Your task to perform on an android device: turn off translation in the chrome app Image 0: 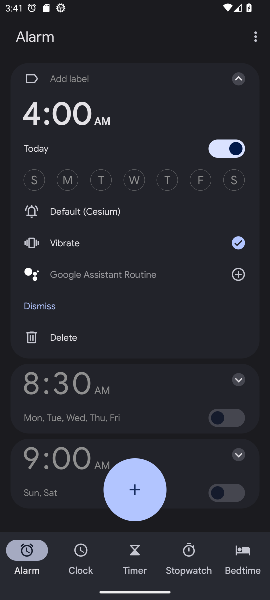
Step 0: press home button
Your task to perform on an android device: turn off translation in the chrome app Image 1: 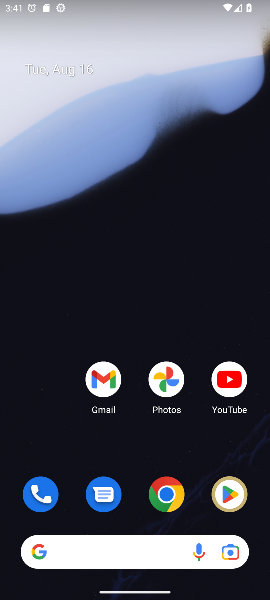
Step 1: click (175, 493)
Your task to perform on an android device: turn off translation in the chrome app Image 2: 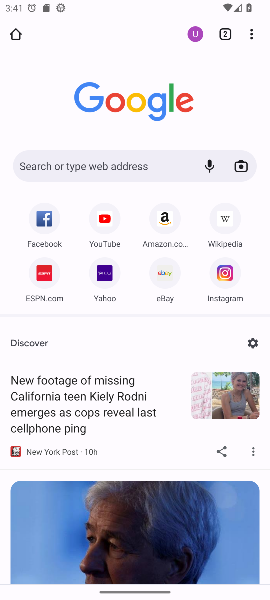
Step 2: click (249, 29)
Your task to perform on an android device: turn off translation in the chrome app Image 3: 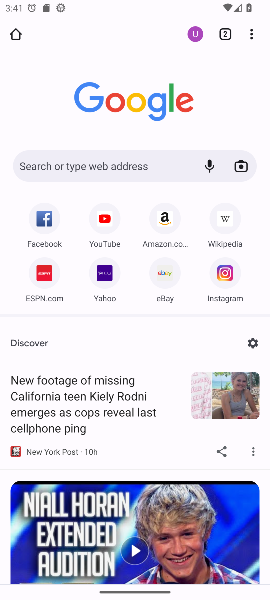
Step 3: click (258, 39)
Your task to perform on an android device: turn off translation in the chrome app Image 4: 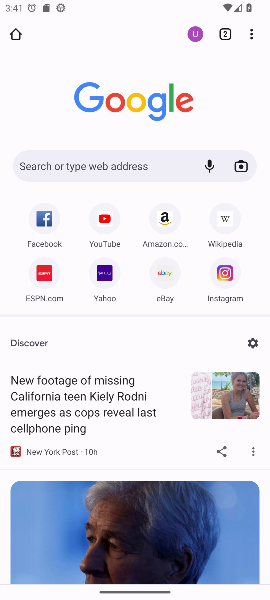
Step 4: drag from (248, 29) to (157, 313)
Your task to perform on an android device: turn off translation in the chrome app Image 5: 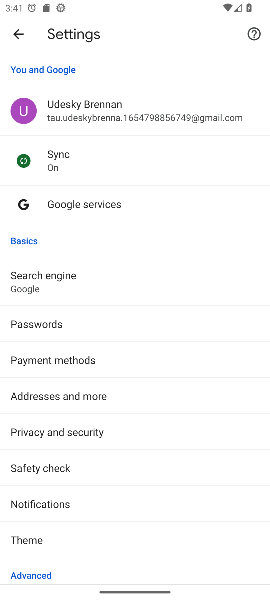
Step 5: drag from (48, 478) to (37, 179)
Your task to perform on an android device: turn off translation in the chrome app Image 6: 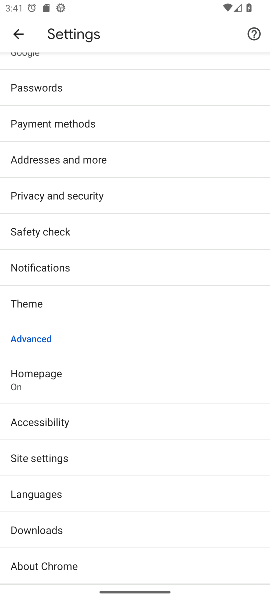
Step 6: click (78, 487)
Your task to perform on an android device: turn off translation in the chrome app Image 7: 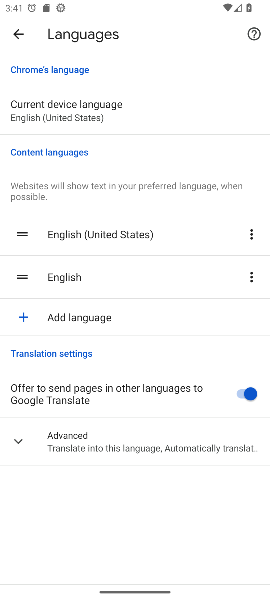
Step 7: click (245, 394)
Your task to perform on an android device: turn off translation in the chrome app Image 8: 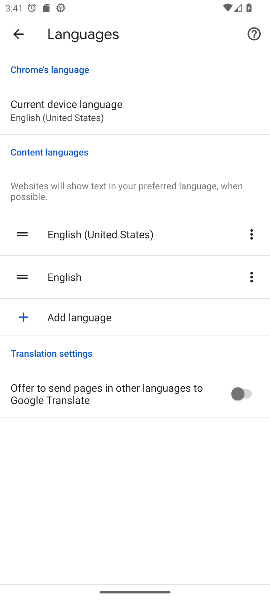
Step 8: task complete